Your task to perform on an android device: turn off airplane mode Image 0: 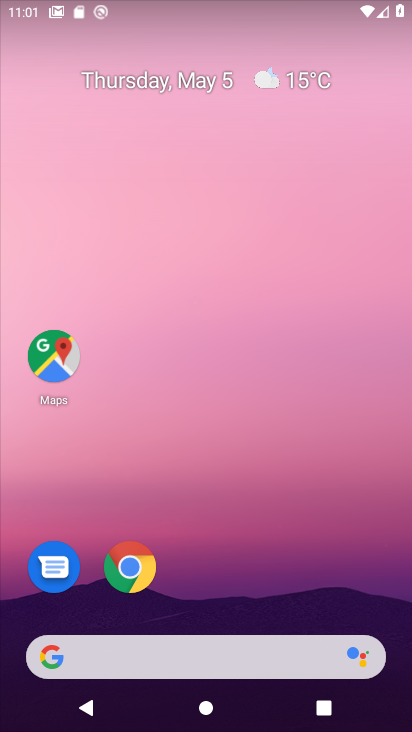
Step 0: drag from (307, 593) to (309, 21)
Your task to perform on an android device: turn off airplane mode Image 1: 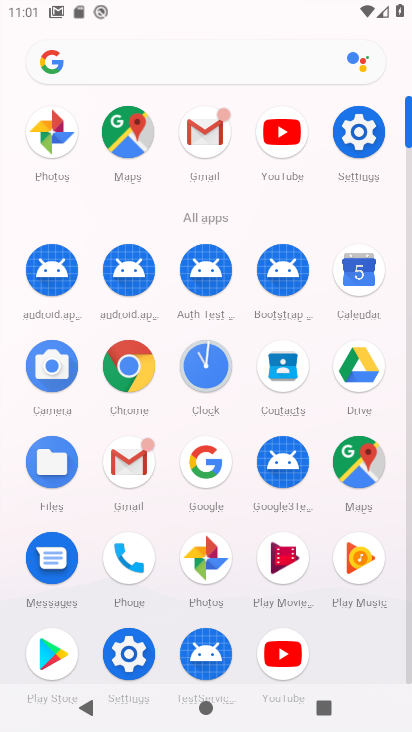
Step 1: click (349, 133)
Your task to perform on an android device: turn off airplane mode Image 2: 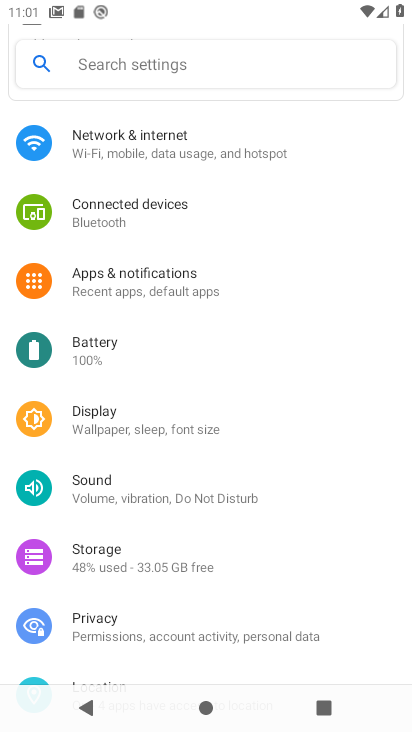
Step 2: click (218, 157)
Your task to perform on an android device: turn off airplane mode Image 3: 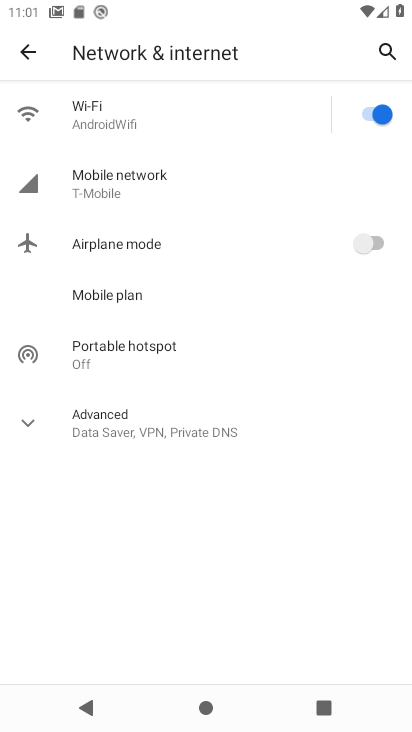
Step 3: task complete